Your task to perform on an android device: Open Youtube and go to "Your channel" Image 0: 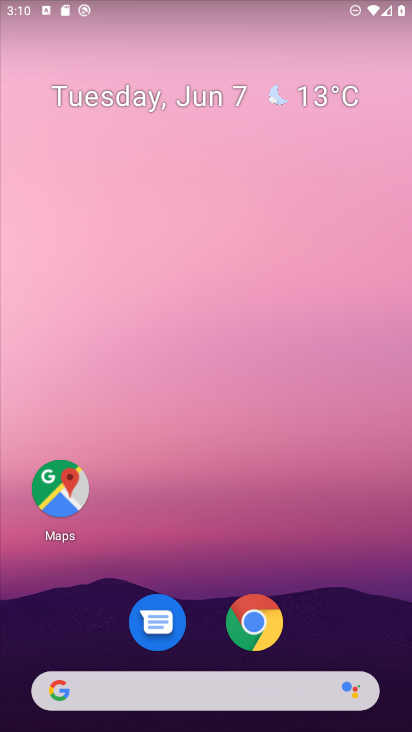
Step 0: drag from (199, 546) to (246, 38)
Your task to perform on an android device: Open Youtube and go to "Your channel" Image 1: 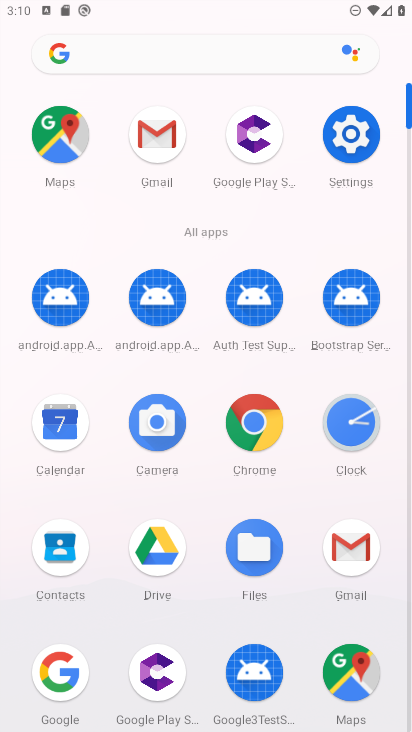
Step 1: drag from (284, 571) to (237, 155)
Your task to perform on an android device: Open Youtube and go to "Your channel" Image 2: 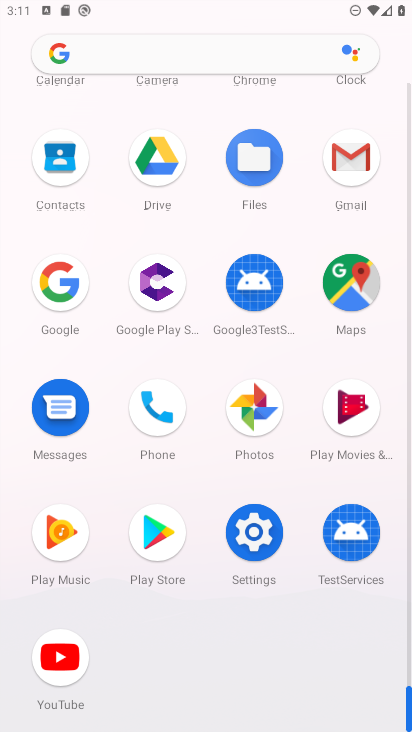
Step 2: click (65, 661)
Your task to perform on an android device: Open Youtube and go to "Your channel" Image 3: 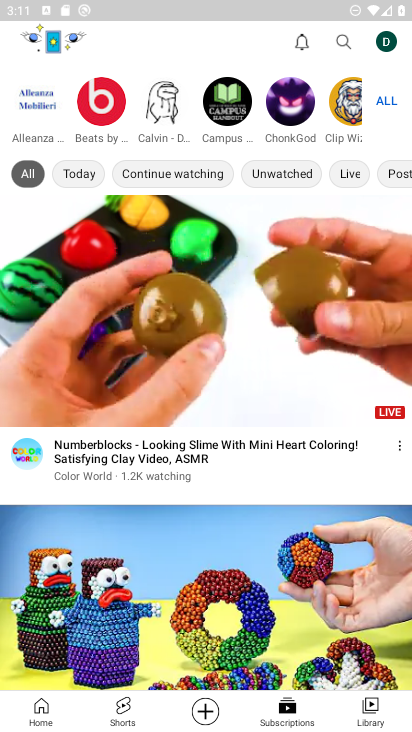
Step 3: click (386, 39)
Your task to perform on an android device: Open Youtube and go to "Your channel" Image 4: 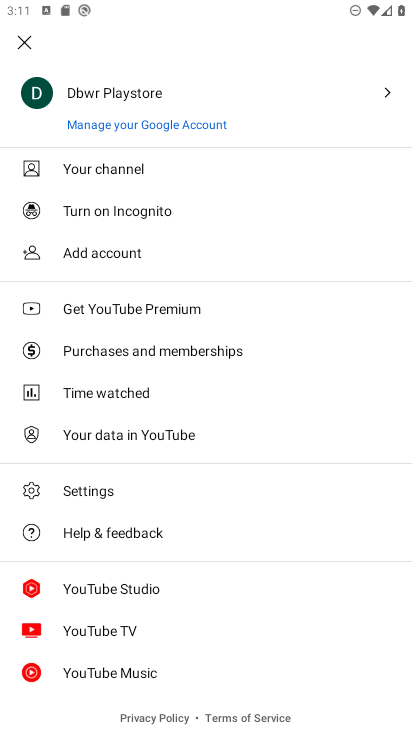
Step 4: click (111, 174)
Your task to perform on an android device: Open Youtube and go to "Your channel" Image 5: 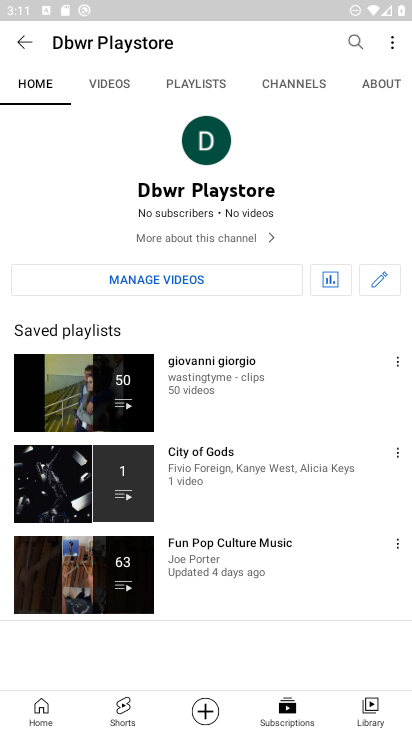
Step 5: task complete